Your task to perform on an android device: See recent photos Image 0: 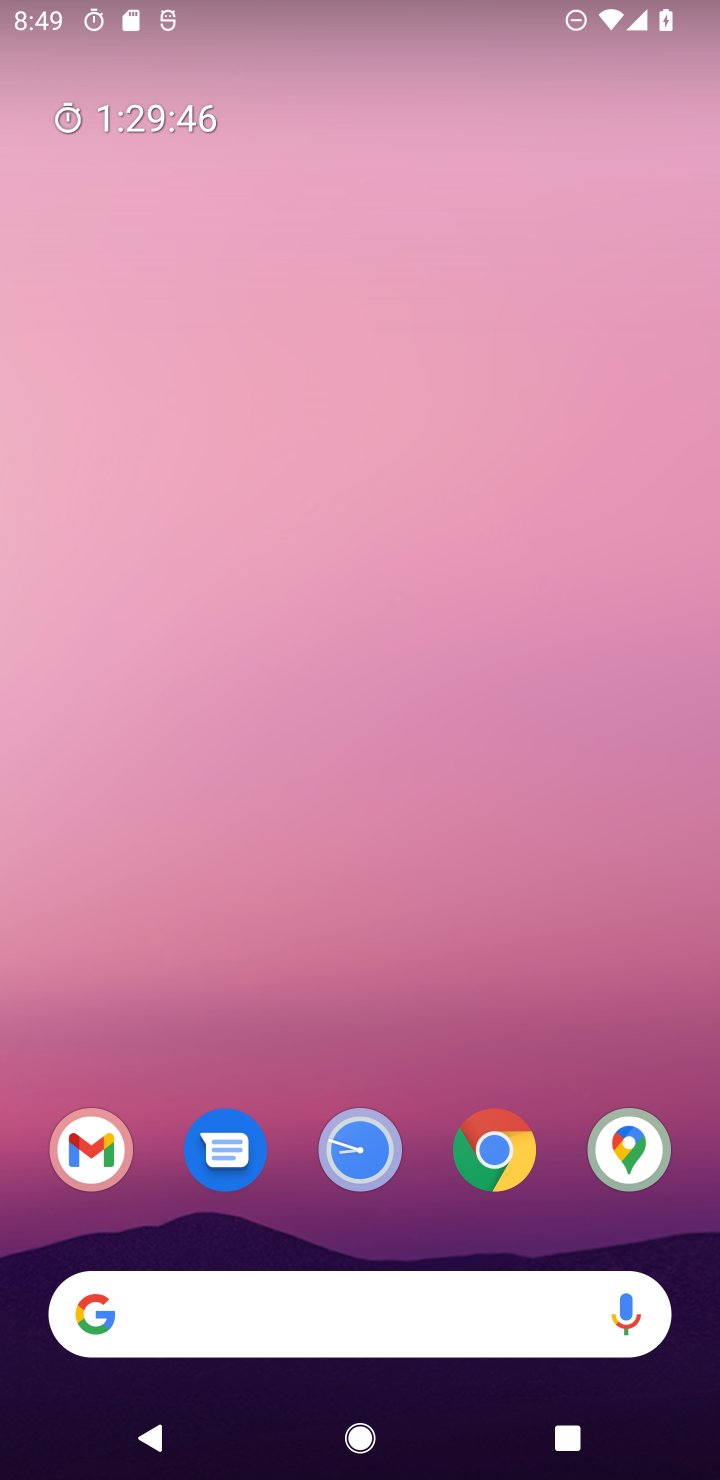
Step 0: drag from (369, 1000) to (344, 9)
Your task to perform on an android device: See recent photos Image 1: 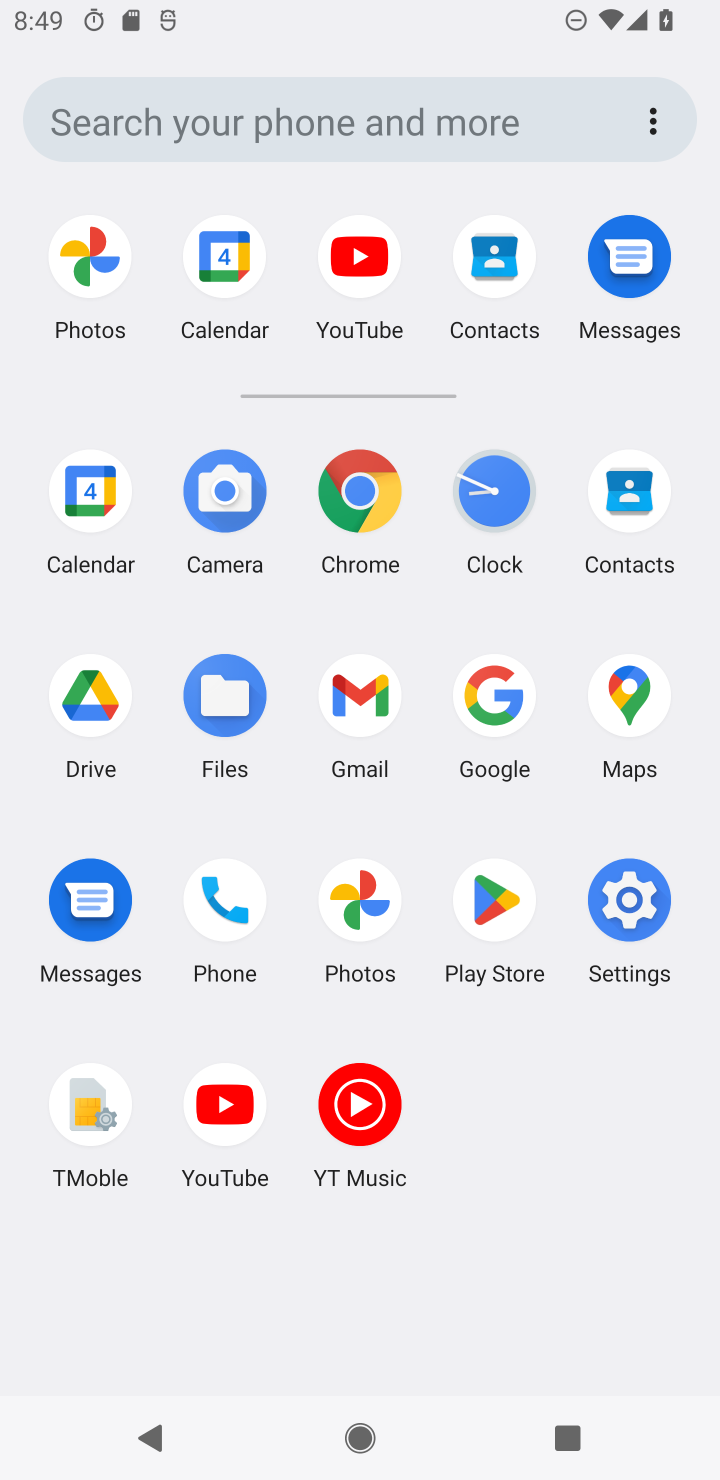
Step 1: click (386, 894)
Your task to perform on an android device: See recent photos Image 2: 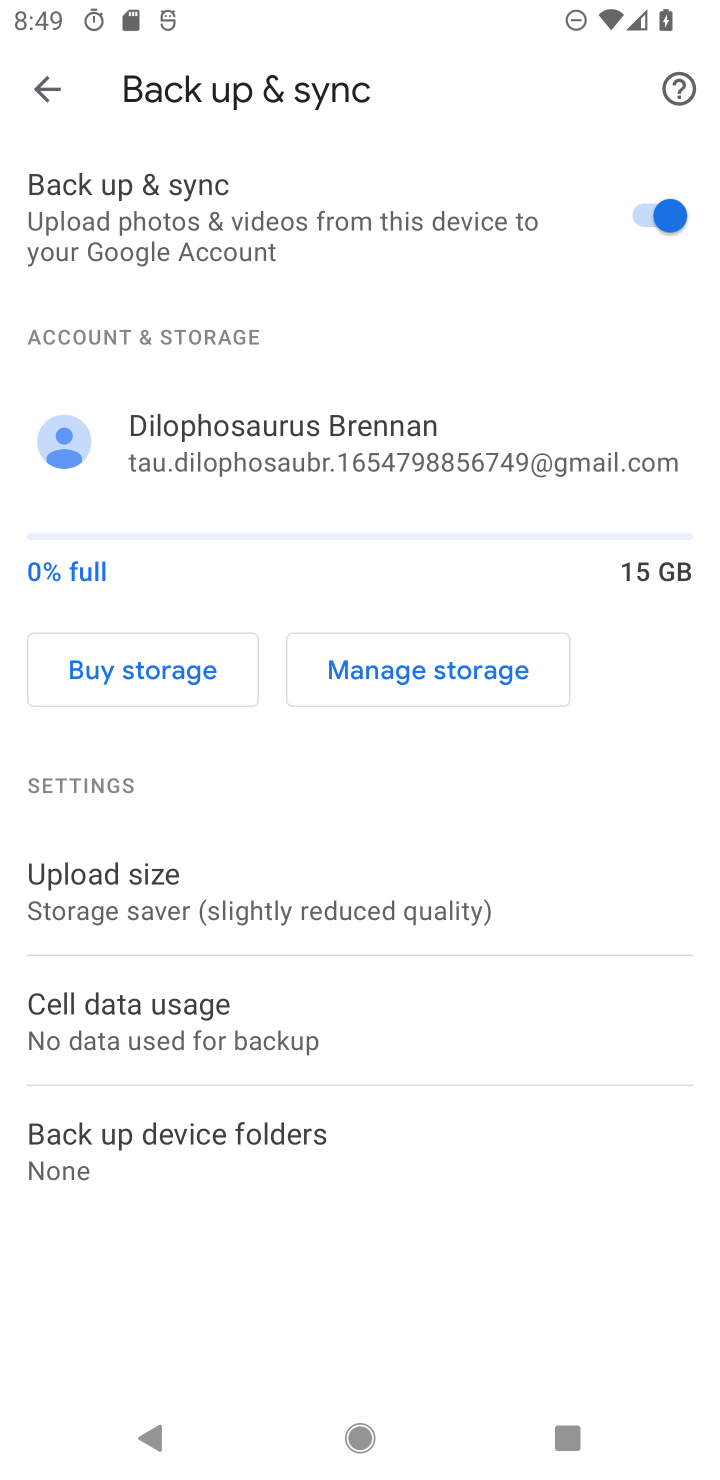
Step 2: press home button
Your task to perform on an android device: See recent photos Image 3: 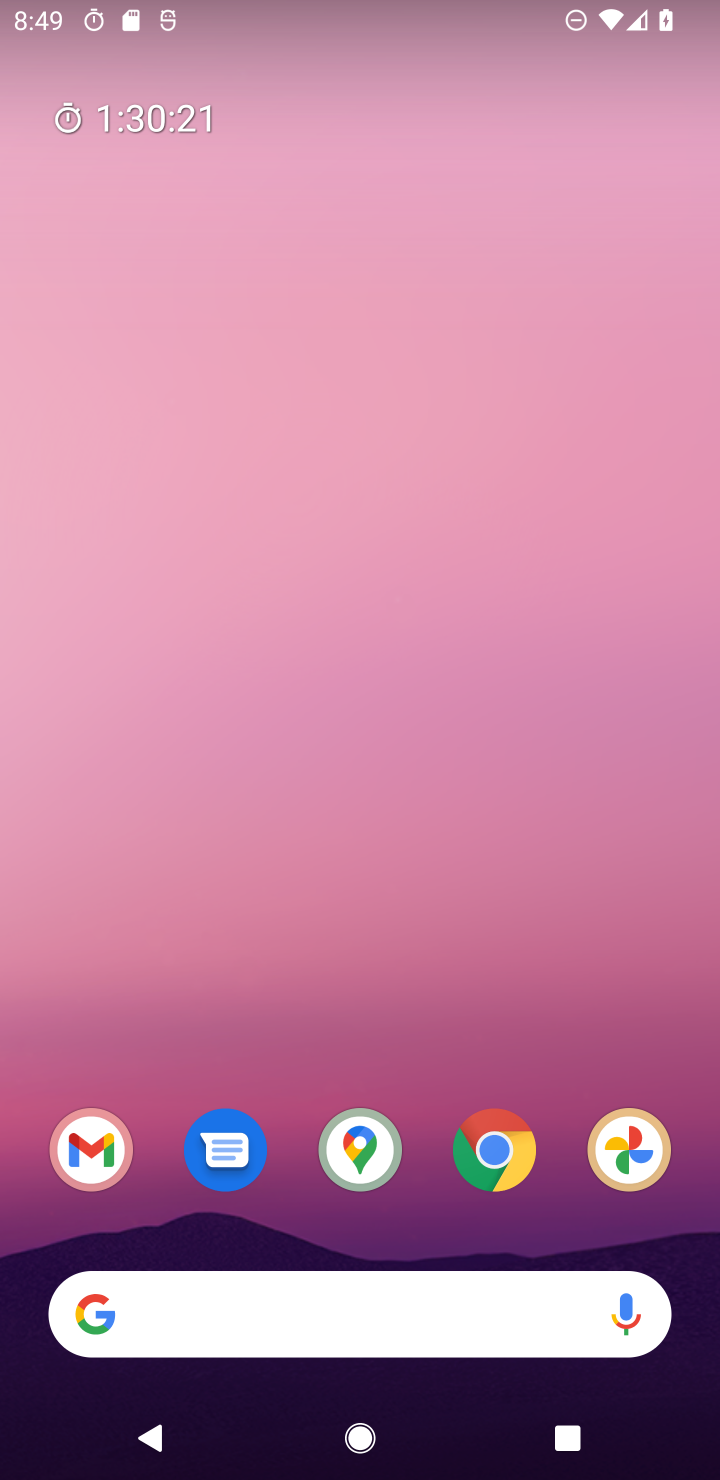
Step 3: drag from (359, 1329) to (452, 0)
Your task to perform on an android device: See recent photos Image 4: 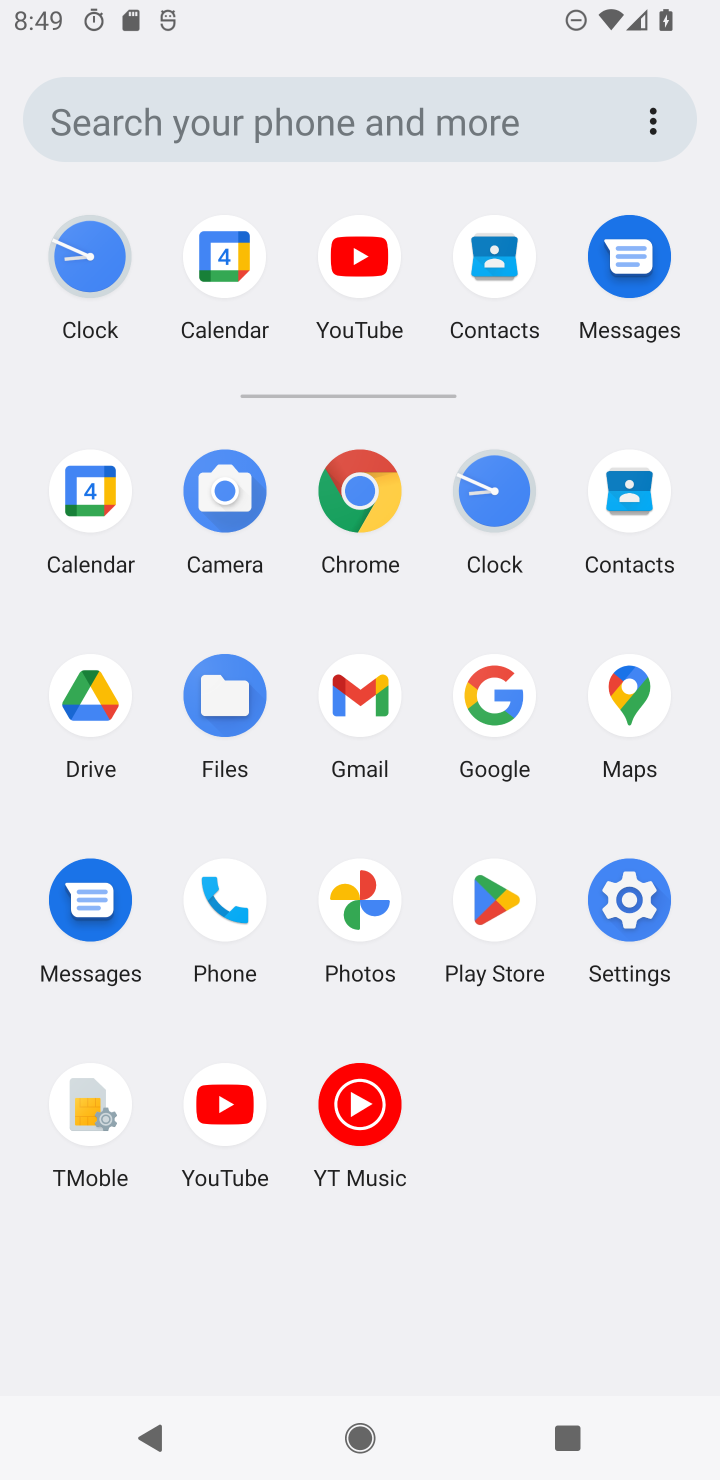
Step 4: click (370, 891)
Your task to perform on an android device: See recent photos Image 5: 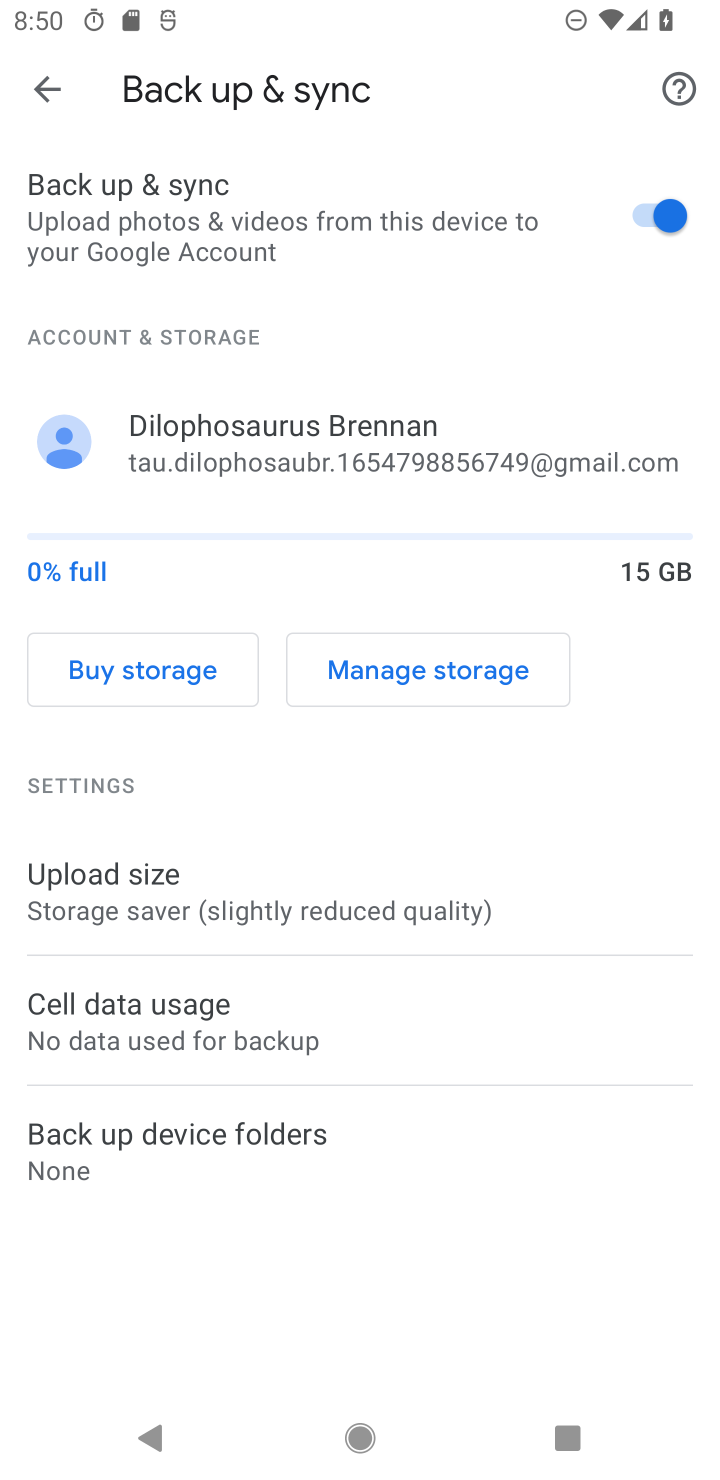
Step 5: task complete